Your task to perform on an android device: turn on wifi Image 0: 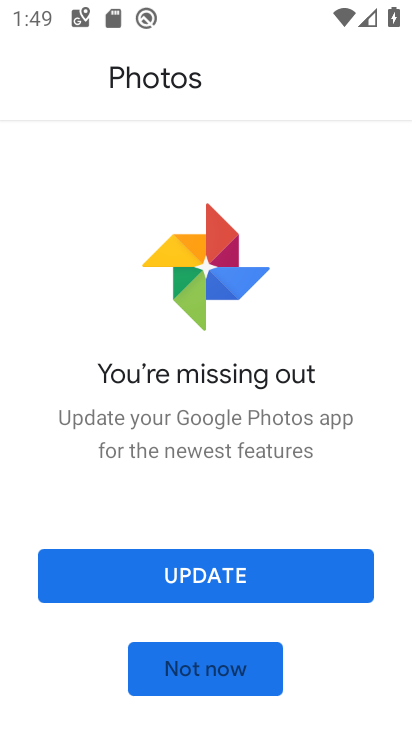
Step 0: click (305, 442)
Your task to perform on an android device: turn on wifi Image 1: 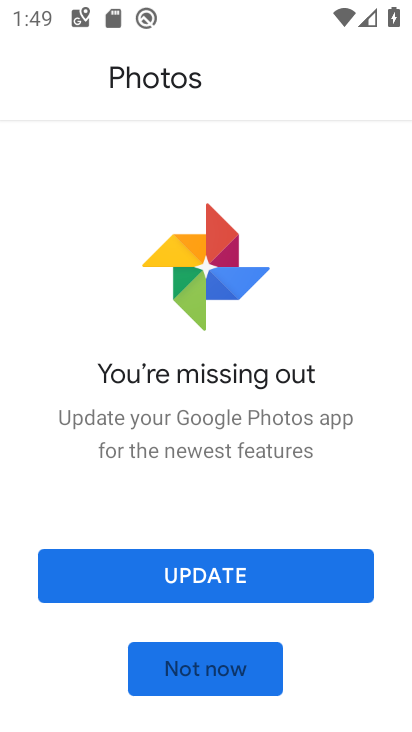
Step 1: click (248, 587)
Your task to perform on an android device: turn on wifi Image 2: 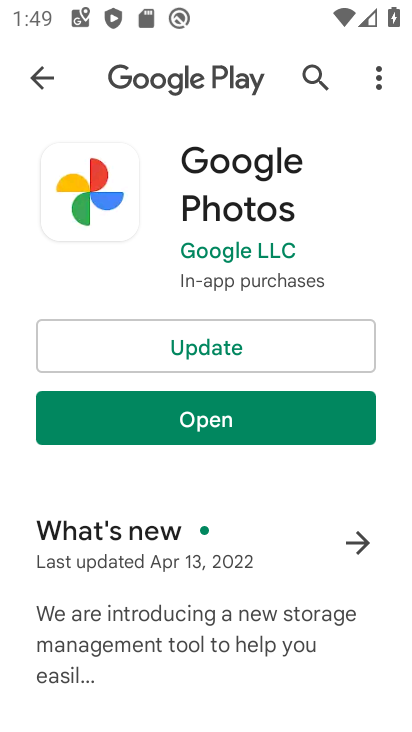
Step 2: task complete